Your task to perform on an android device: change the upload size in google photos Image 0: 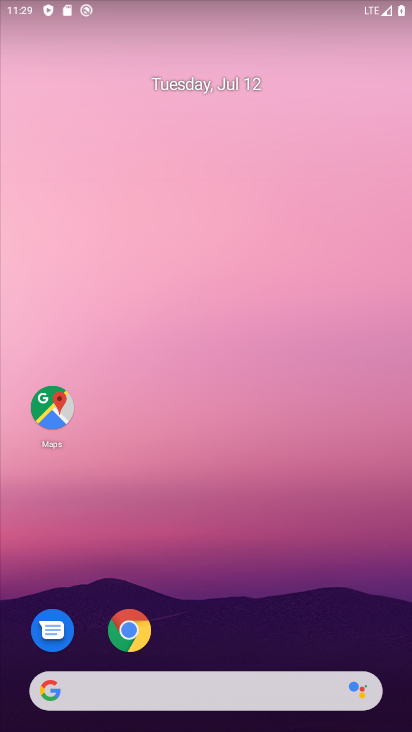
Step 0: drag from (385, 655) to (238, 14)
Your task to perform on an android device: change the upload size in google photos Image 1: 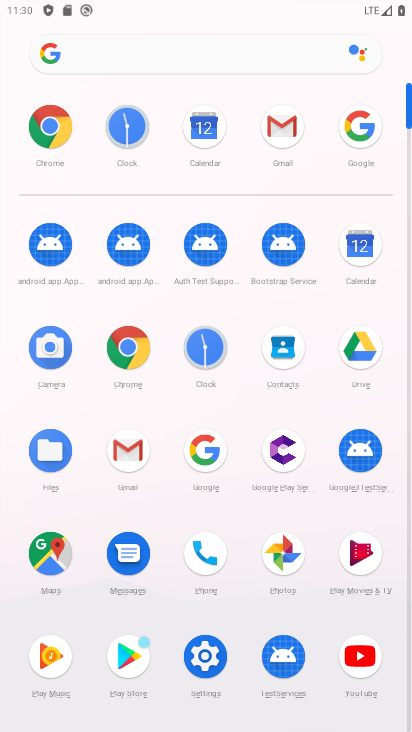
Step 1: click (291, 554)
Your task to perform on an android device: change the upload size in google photos Image 2: 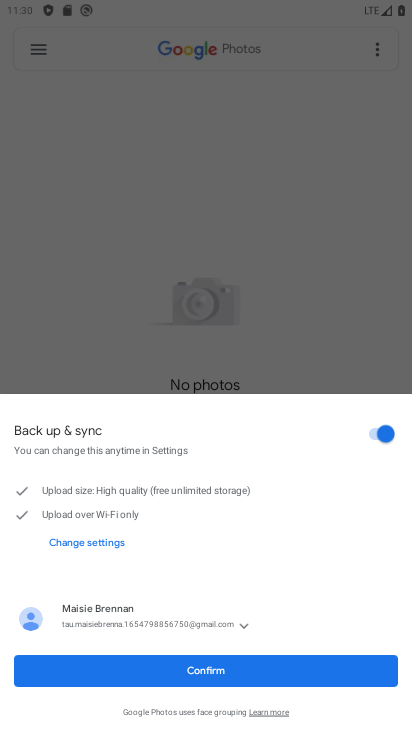
Step 2: click (191, 669)
Your task to perform on an android device: change the upload size in google photos Image 3: 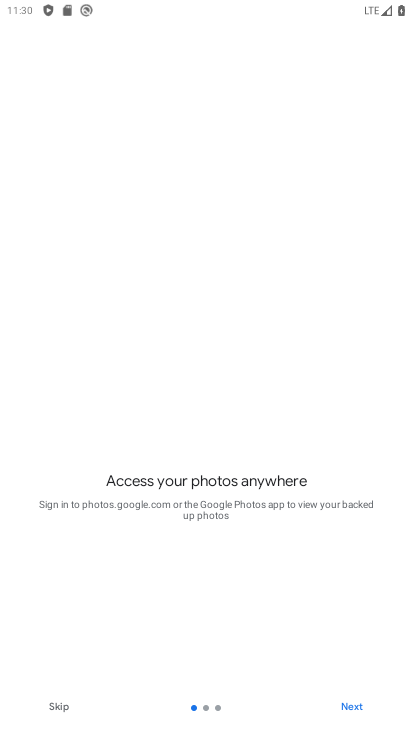
Step 3: click (354, 709)
Your task to perform on an android device: change the upload size in google photos Image 4: 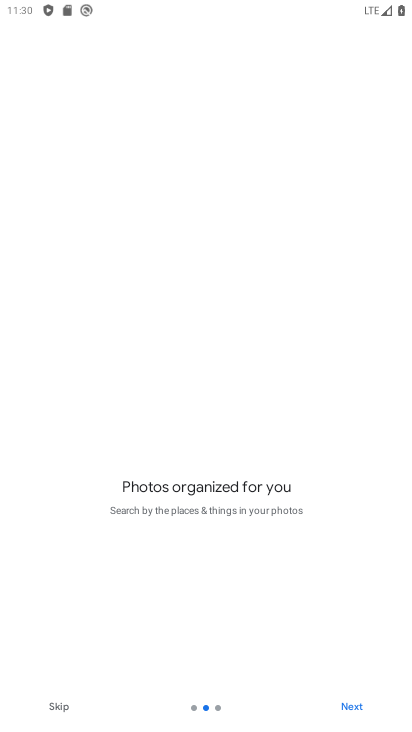
Step 4: click (354, 709)
Your task to perform on an android device: change the upload size in google photos Image 5: 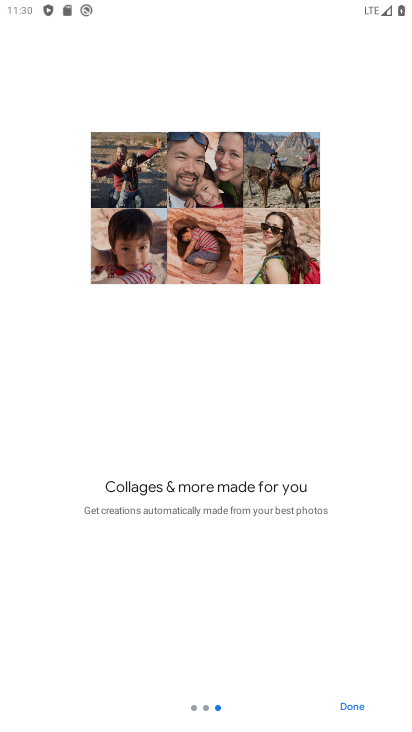
Step 5: click (354, 709)
Your task to perform on an android device: change the upload size in google photos Image 6: 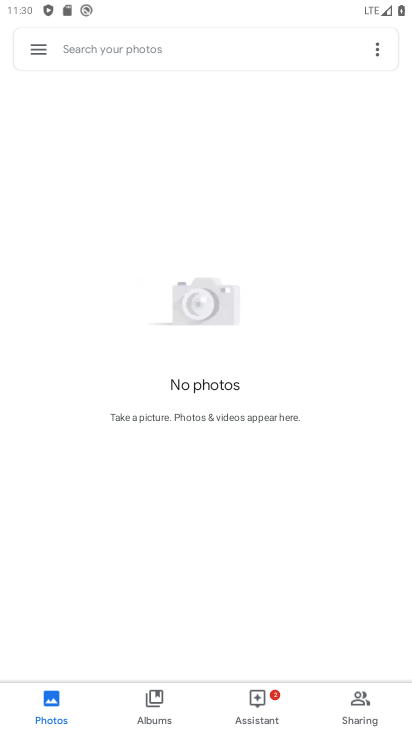
Step 6: click (33, 41)
Your task to perform on an android device: change the upload size in google photos Image 7: 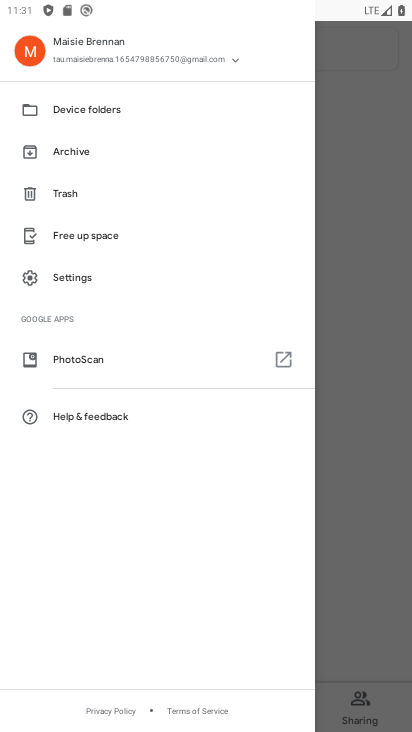
Step 7: click (73, 281)
Your task to perform on an android device: change the upload size in google photos Image 8: 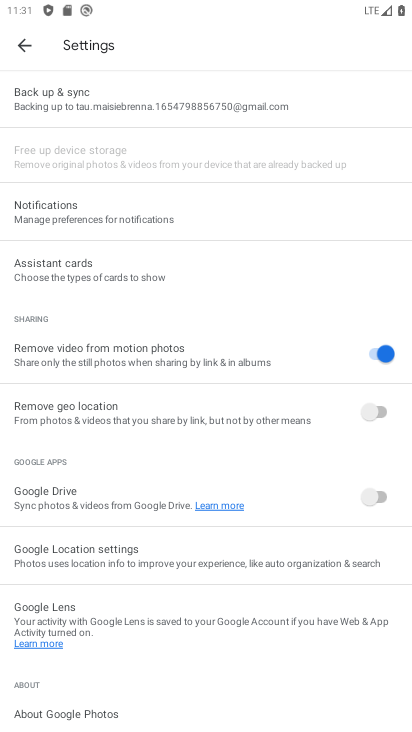
Step 8: click (129, 104)
Your task to perform on an android device: change the upload size in google photos Image 9: 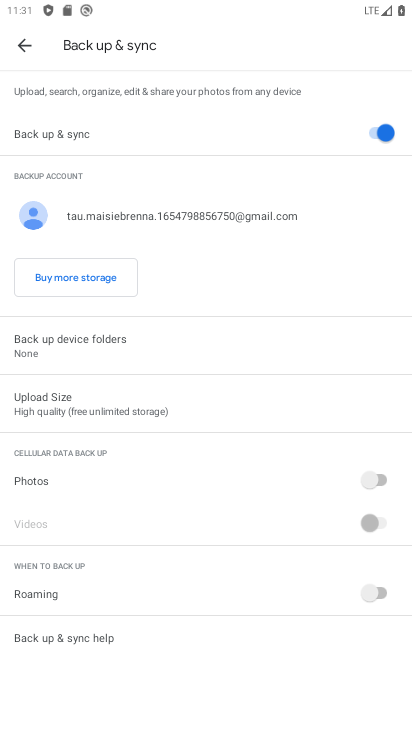
Step 9: click (109, 414)
Your task to perform on an android device: change the upload size in google photos Image 10: 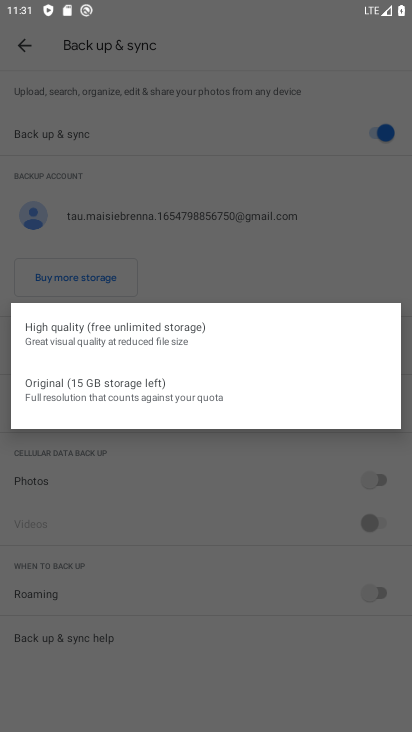
Step 10: click (112, 407)
Your task to perform on an android device: change the upload size in google photos Image 11: 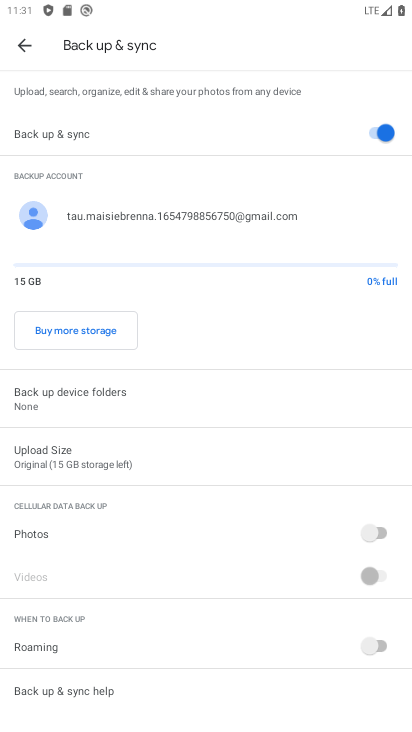
Step 11: task complete